Your task to perform on an android device: Open Youtube and go to "Your channel" Image 0: 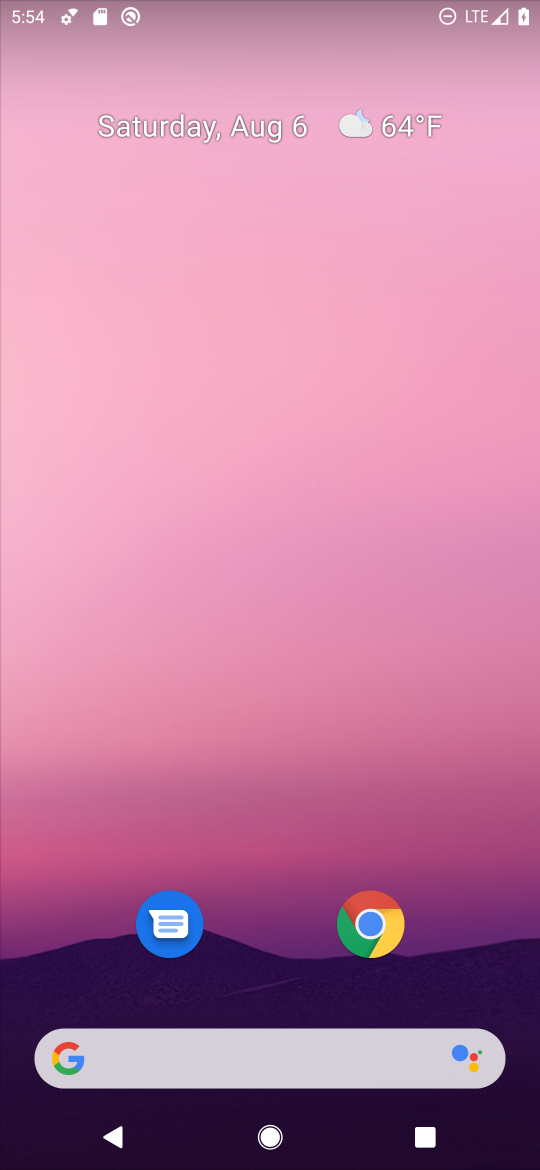
Step 0: drag from (245, 946) to (207, 32)
Your task to perform on an android device: Open Youtube and go to "Your channel" Image 1: 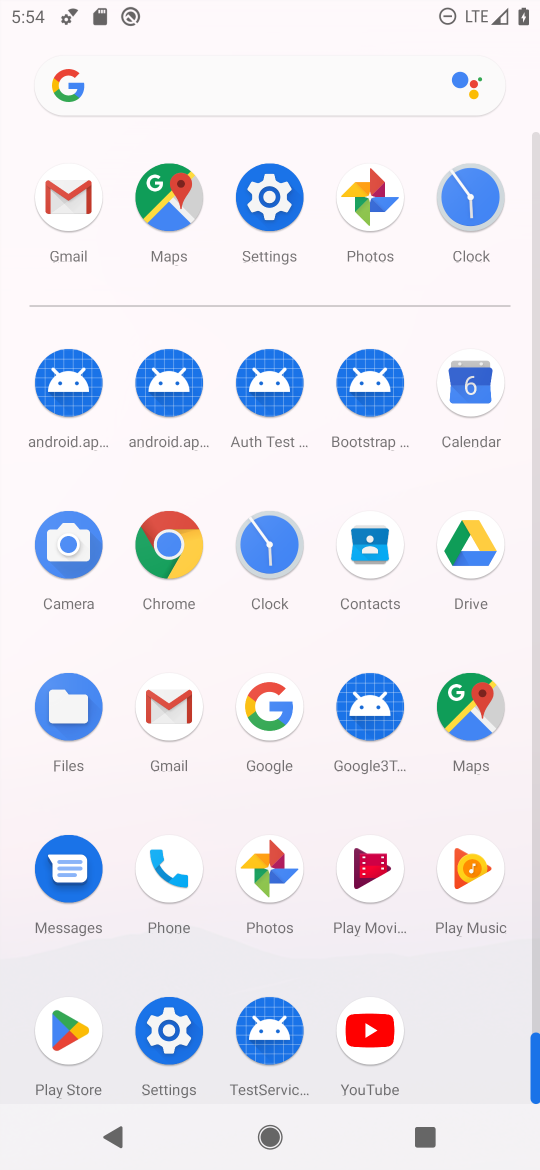
Step 1: click (361, 1024)
Your task to perform on an android device: Open Youtube and go to "Your channel" Image 2: 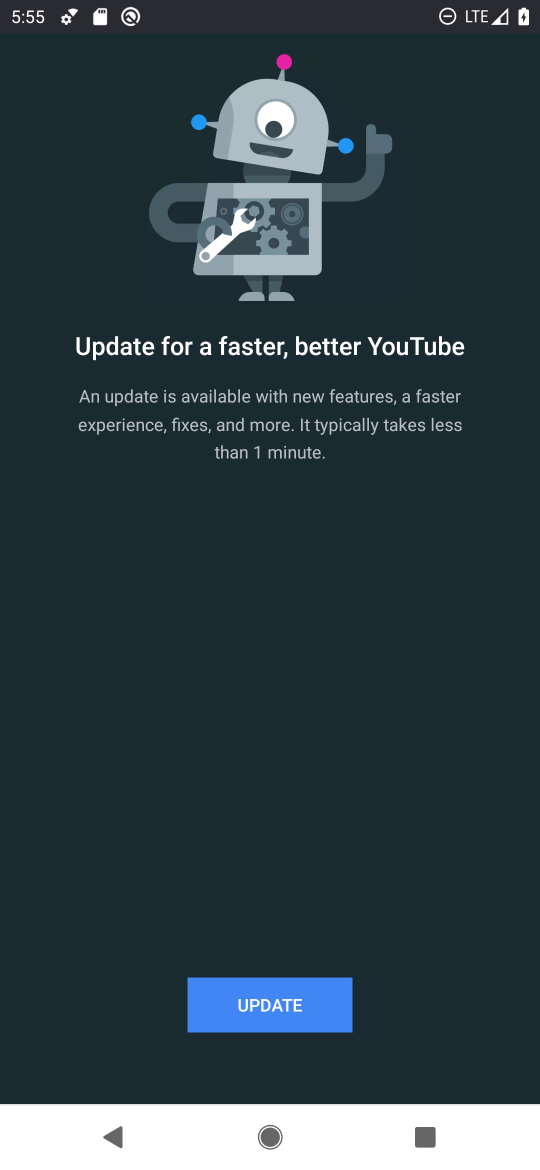
Step 2: click (238, 997)
Your task to perform on an android device: Open Youtube and go to "Your channel" Image 3: 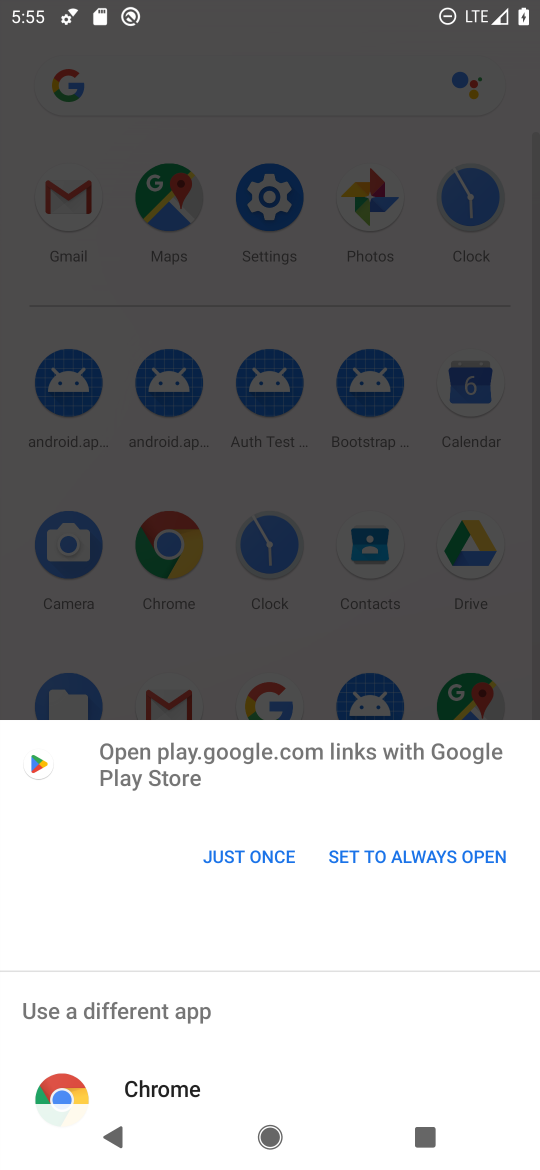
Step 3: click (238, 845)
Your task to perform on an android device: Open Youtube and go to "Your channel" Image 4: 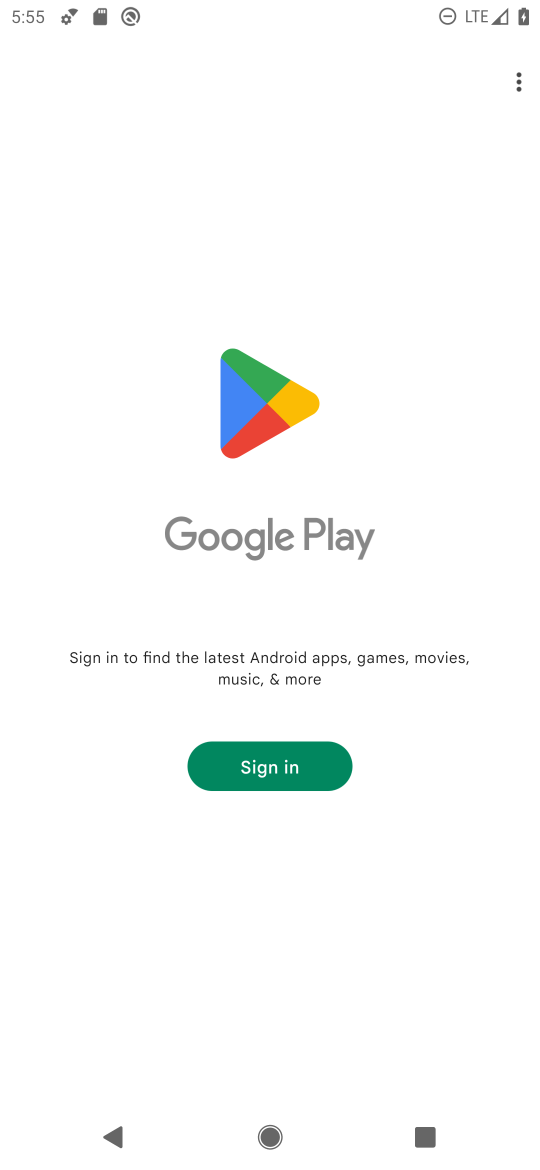
Step 4: task complete